Your task to perform on an android device: check storage Image 0: 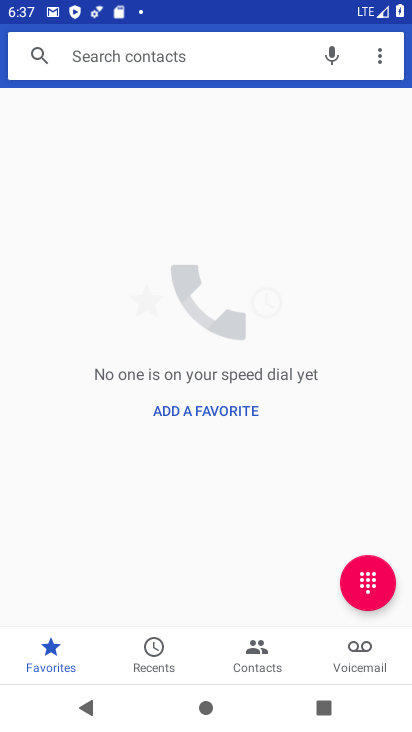
Step 0: press back button
Your task to perform on an android device: check storage Image 1: 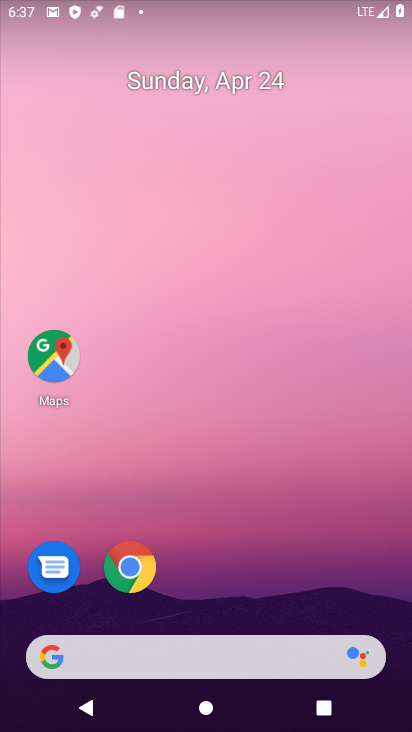
Step 1: drag from (344, 603) to (243, 8)
Your task to perform on an android device: check storage Image 2: 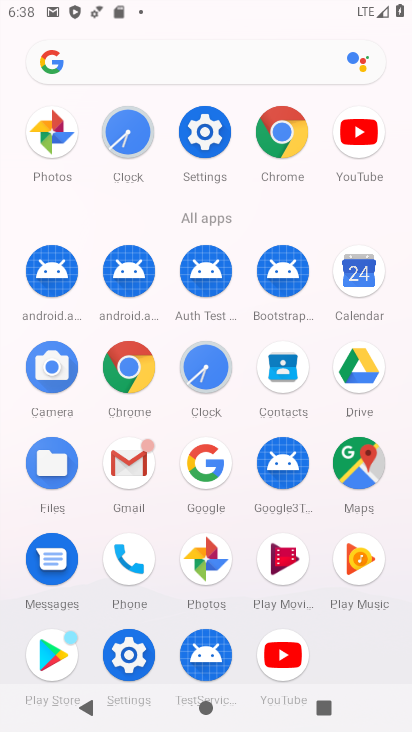
Step 2: click (148, 641)
Your task to perform on an android device: check storage Image 3: 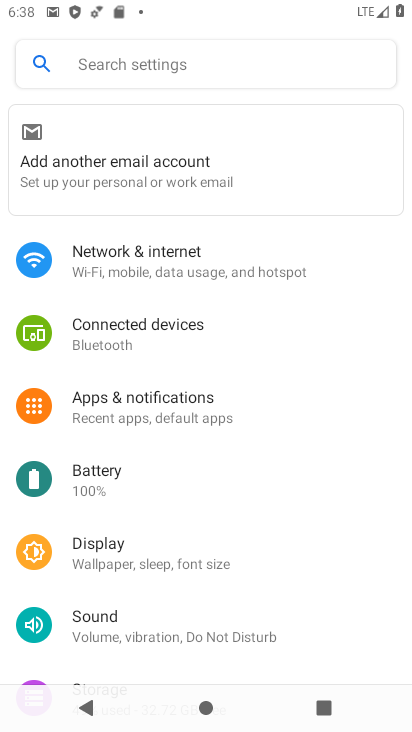
Step 3: drag from (148, 628) to (200, 289)
Your task to perform on an android device: check storage Image 4: 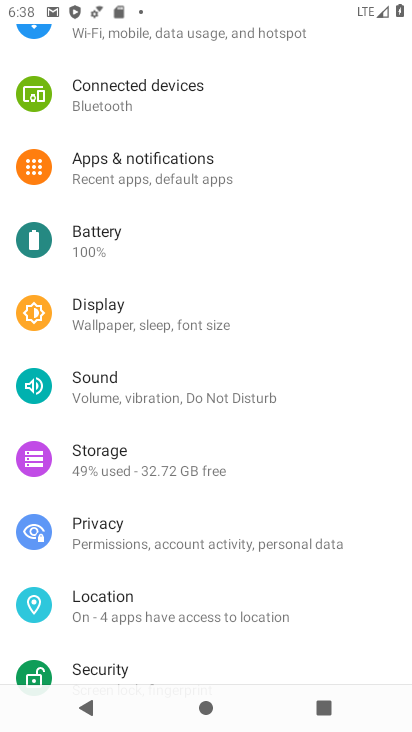
Step 4: click (137, 459)
Your task to perform on an android device: check storage Image 5: 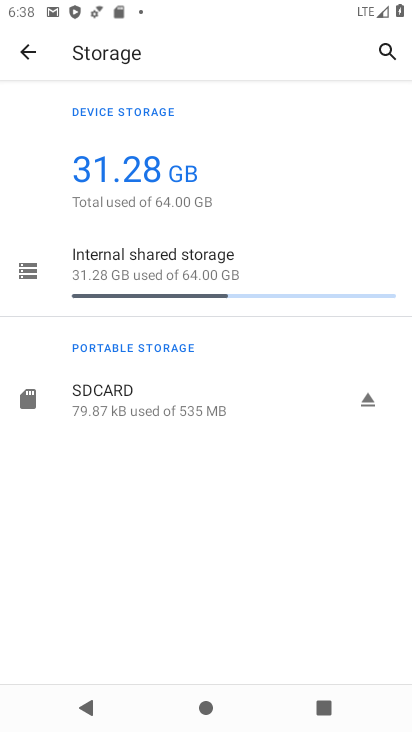
Step 5: click (153, 242)
Your task to perform on an android device: check storage Image 6: 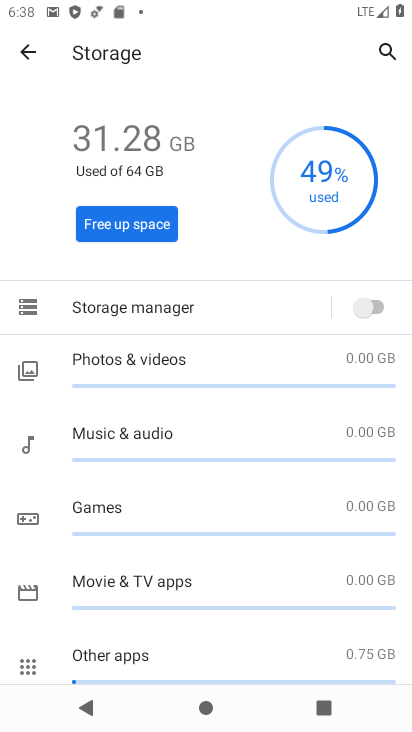
Step 6: click (315, 166)
Your task to perform on an android device: check storage Image 7: 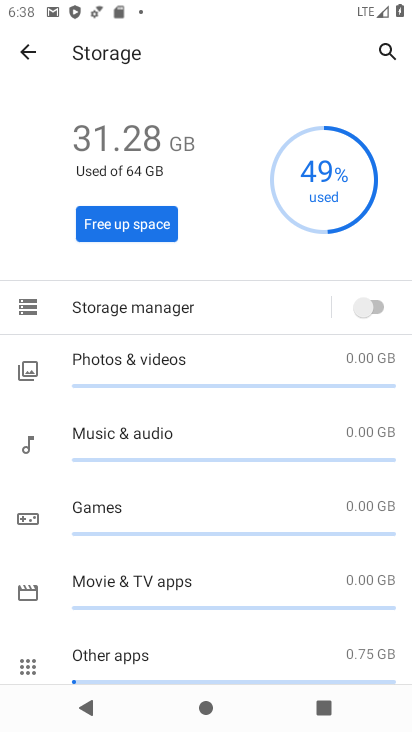
Step 7: task complete